Your task to perform on an android device: Open calendar and show me the third week of next month Image 0: 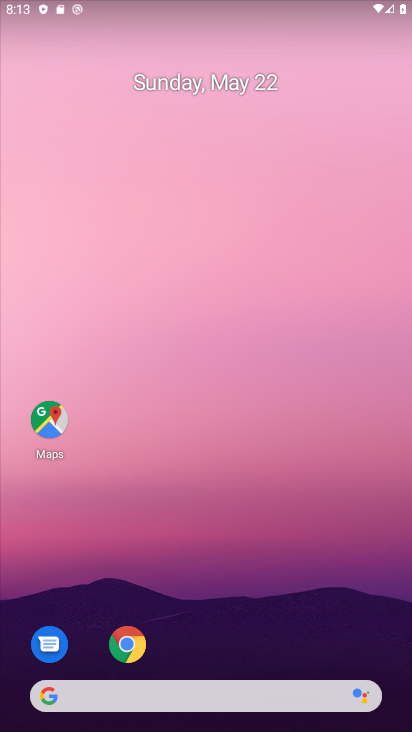
Step 0: drag from (176, 689) to (214, 84)
Your task to perform on an android device: Open calendar and show me the third week of next month Image 1: 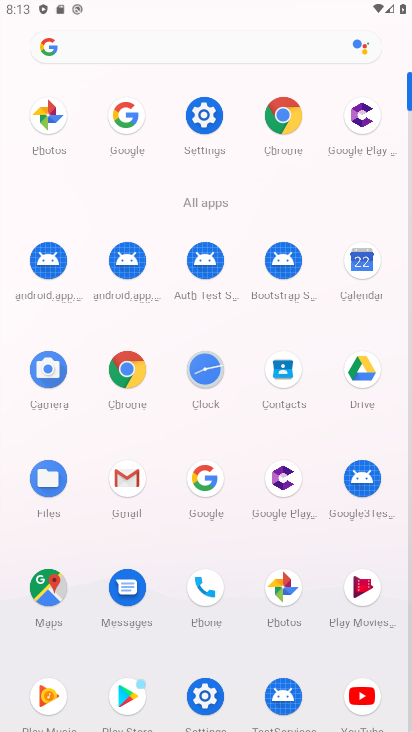
Step 1: click (362, 262)
Your task to perform on an android device: Open calendar and show me the third week of next month Image 2: 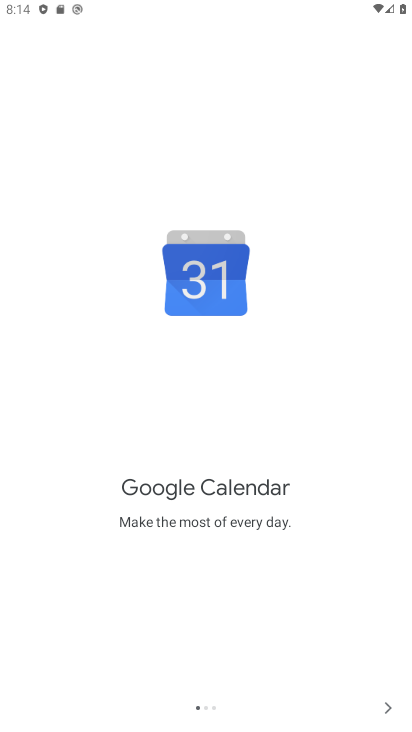
Step 2: click (382, 704)
Your task to perform on an android device: Open calendar and show me the third week of next month Image 3: 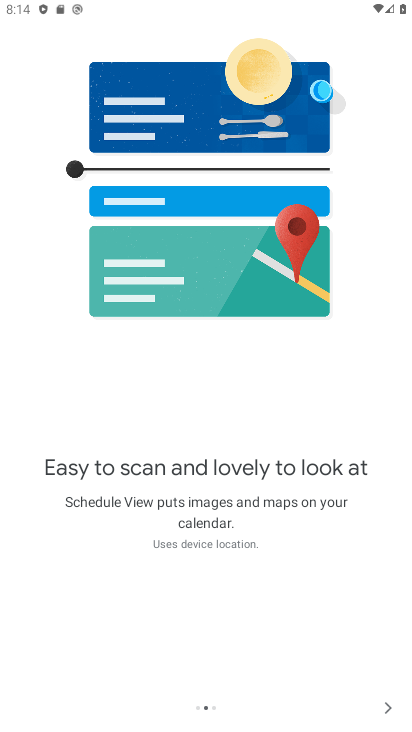
Step 3: click (382, 704)
Your task to perform on an android device: Open calendar and show me the third week of next month Image 4: 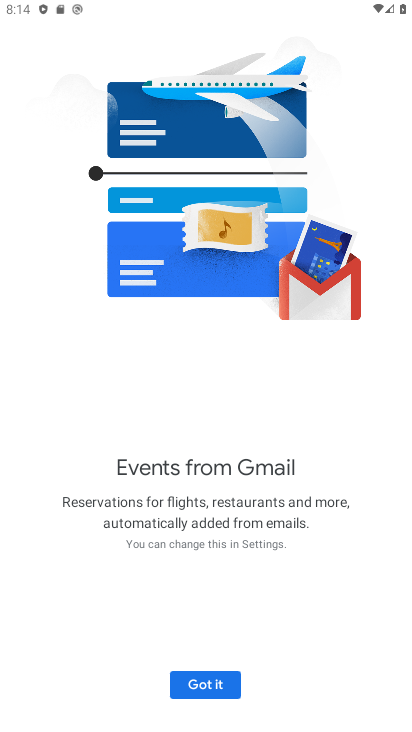
Step 4: click (189, 690)
Your task to perform on an android device: Open calendar and show me the third week of next month Image 5: 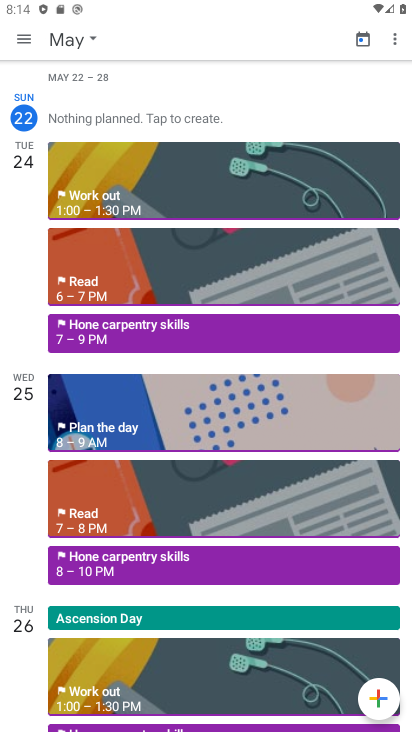
Step 5: click (18, 41)
Your task to perform on an android device: Open calendar and show me the third week of next month Image 6: 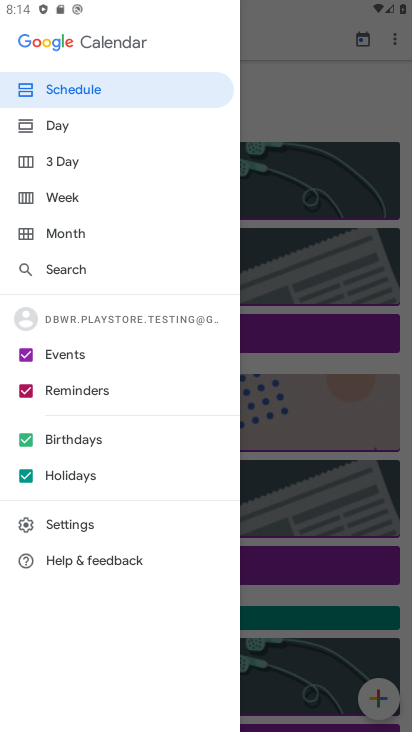
Step 6: click (89, 228)
Your task to perform on an android device: Open calendar and show me the third week of next month Image 7: 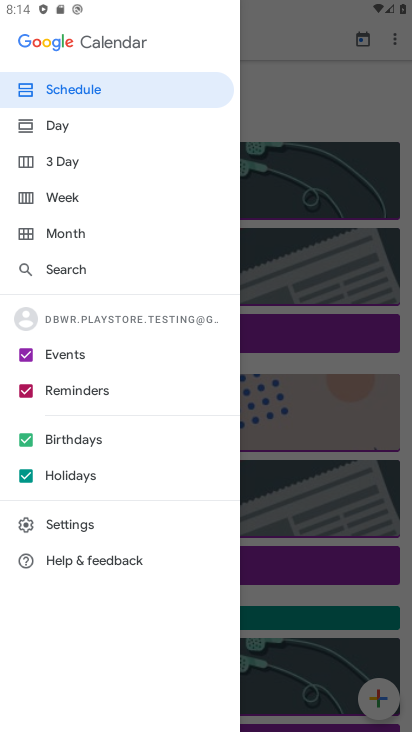
Step 7: click (71, 241)
Your task to perform on an android device: Open calendar and show me the third week of next month Image 8: 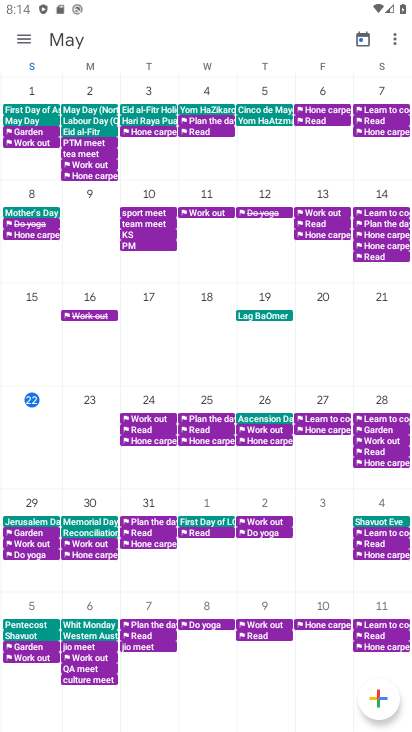
Step 8: task complete